Your task to perform on an android device: turn on data saver in the chrome app Image 0: 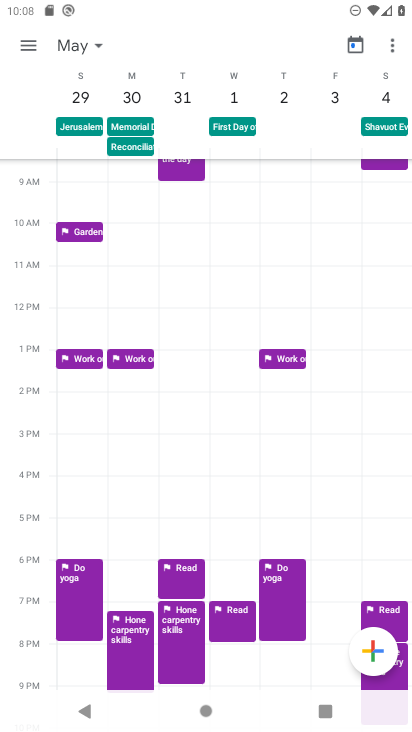
Step 0: press home button
Your task to perform on an android device: turn on data saver in the chrome app Image 1: 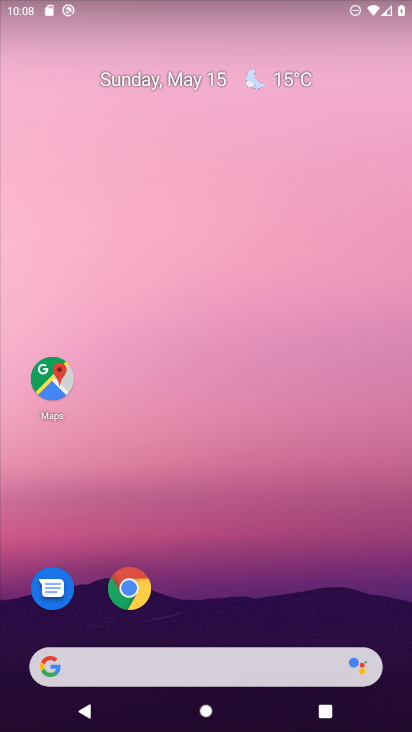
Step 1: click (142, 597)
Your task to perform on an android device: turn on data saver in the chrome app Image 2: 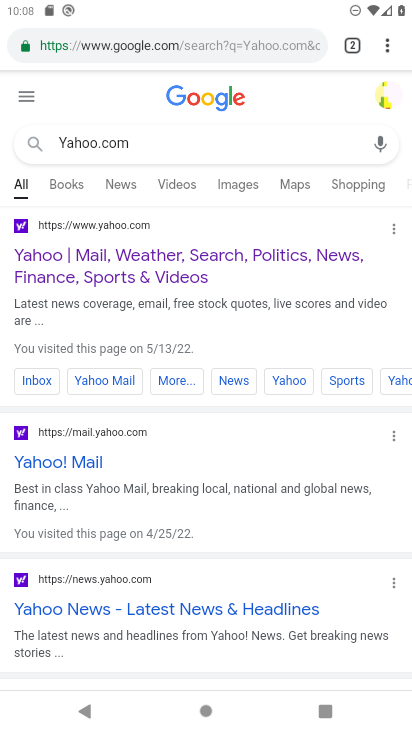
Step 2: click (390, 44)
Your task to perform on an android device: turn on data saver in the chrome app Image 3: 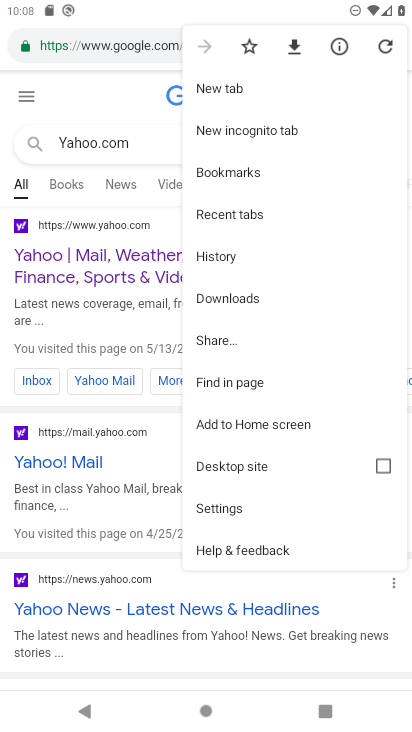
Step 3: click (238, 517)
Your task to perform on an android device: turn on data saver in the chrome app Image 4: 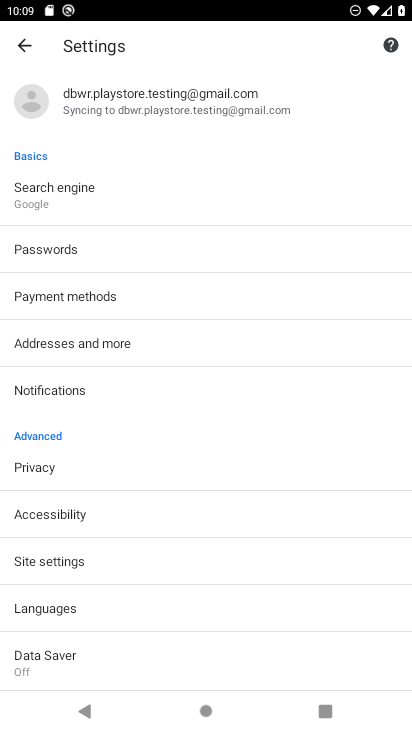
Step 4: click (50, 659)
Your task to perform on an android device: turn on data saver in the chrome app Image 5: 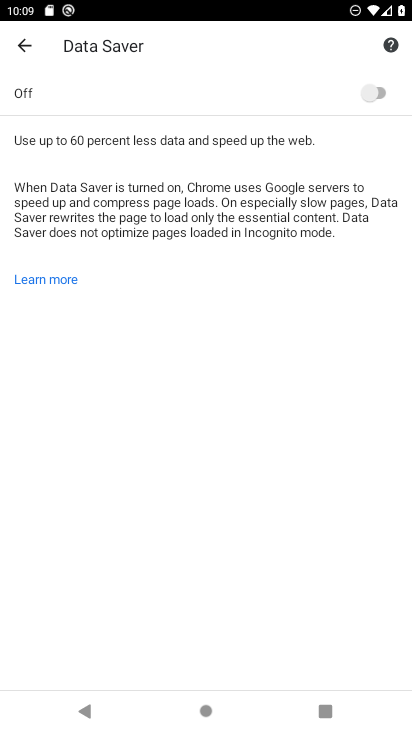
Step 5: click (382, 101)
Your task to perform on an android device: turn on data saver in the chrome app Image 6: 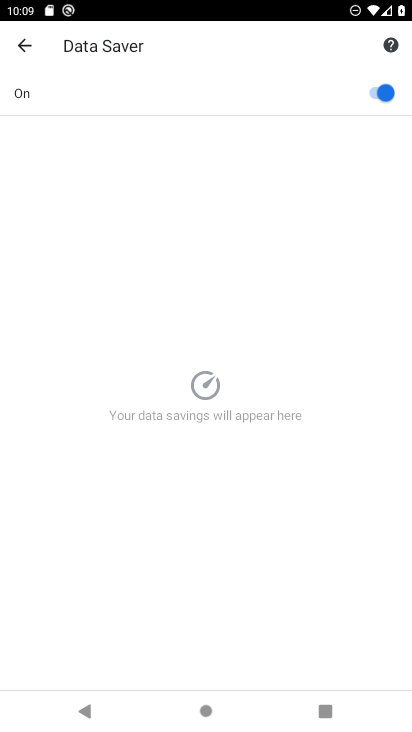
Step 6: task complete